Your task to perform on an android device: set default search engine in the chrome app Image 0: 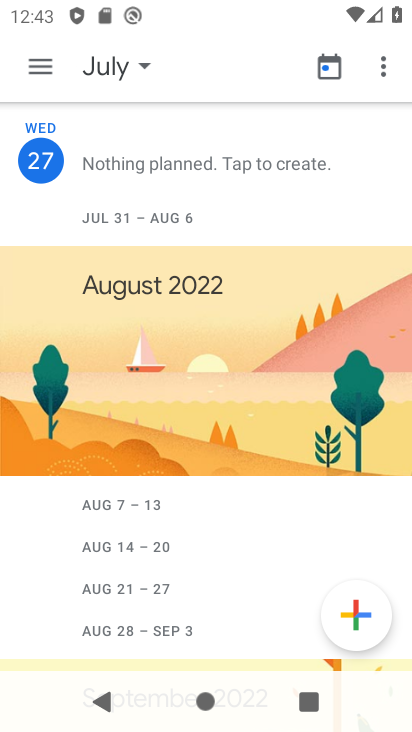
Step 0: press home button
Your task to perform on an android device: set default search engine in the chrome app Image 1: 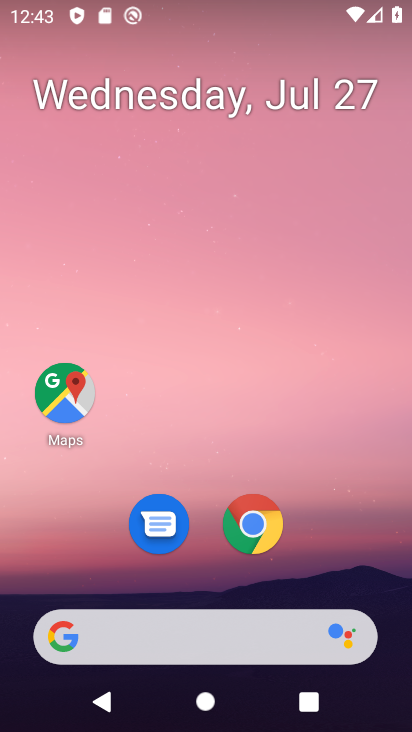
Step 1: click (267, 520)
Your task to perform on an android device: set default search engine in the chrome app Image 2: 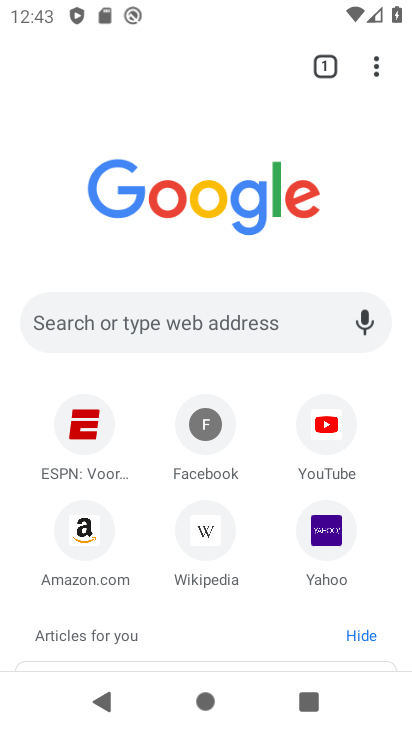
Step 2: click (372, 69)
Your task to perform on an android device: set default search engine in the chrome app Image 3: 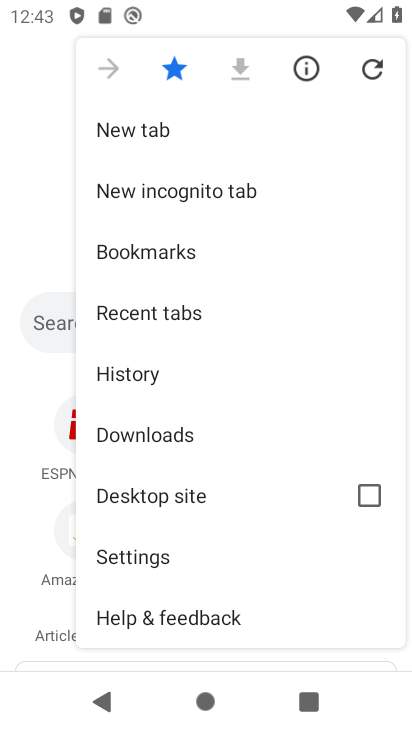
Step 3: click (164, 555)
Your task to perform on an android device: set default search engine in the chrome app Image 4: 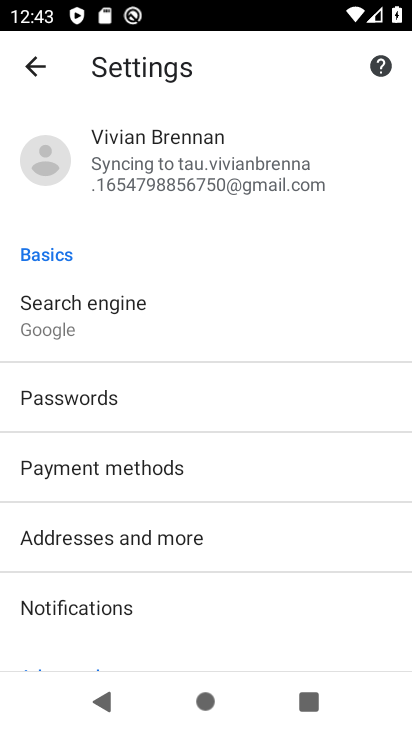
Step 4: click (68, 312)
Your task to perform on an android device: set default search engine in the chrome app Image 5: 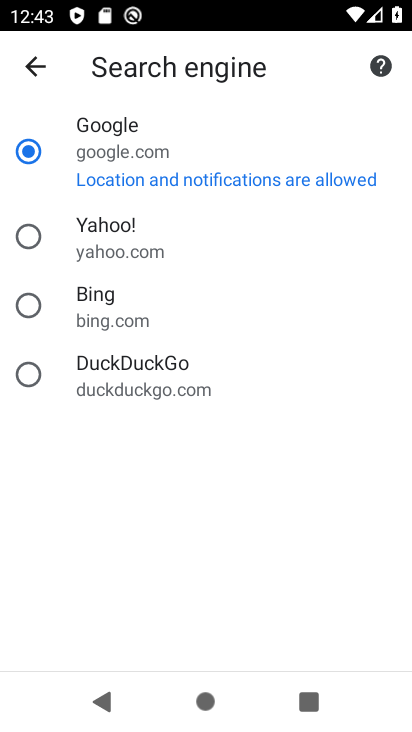
Step 5: task complete